Your task to perform on an android device: uninstall "Booking.com: Hotels and more" Image 0: 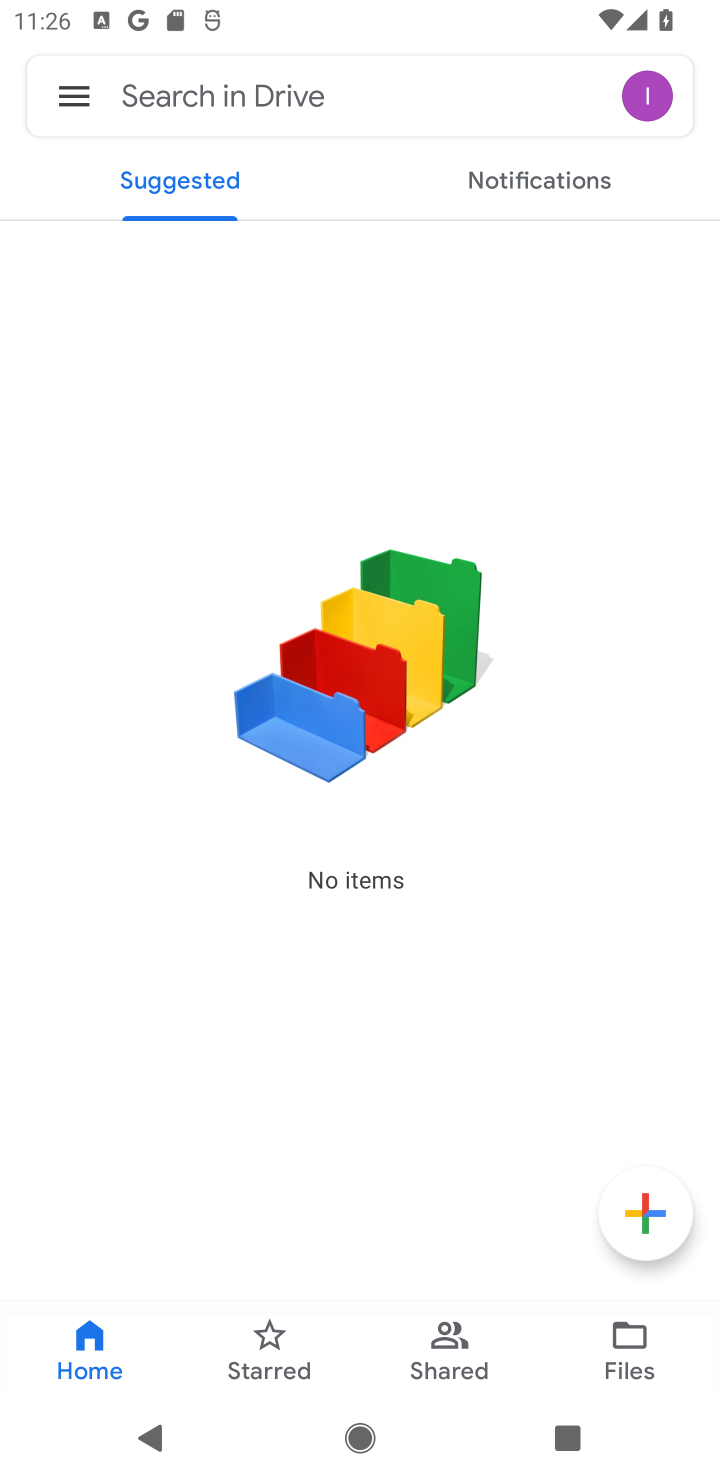
Step 0: press back button
Your task to perform on an android device: uninstall "Booking.com: Hotels and more" Image 1: 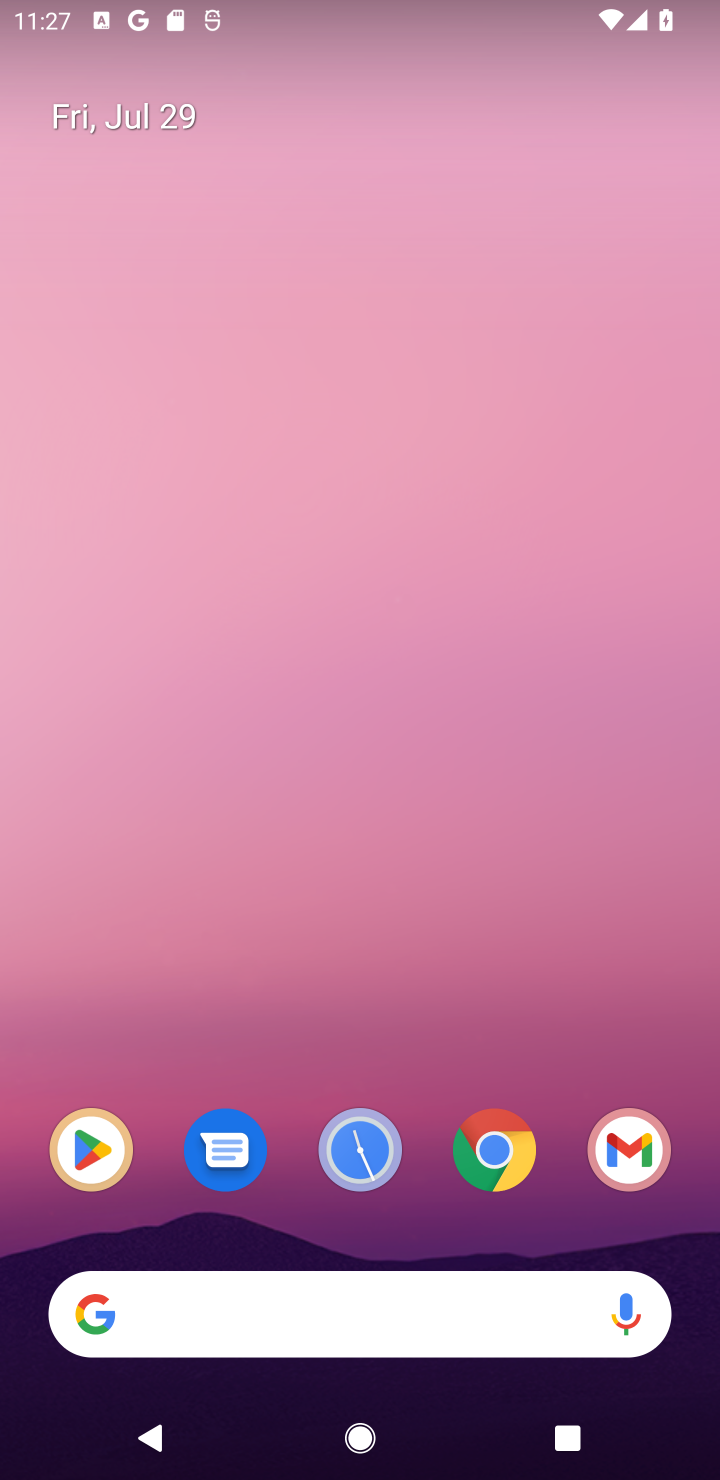
Step 1: click (75, 1181)
Your task to perform on an android device: uninstall "Booking.com: Hotels and more" Image 2: 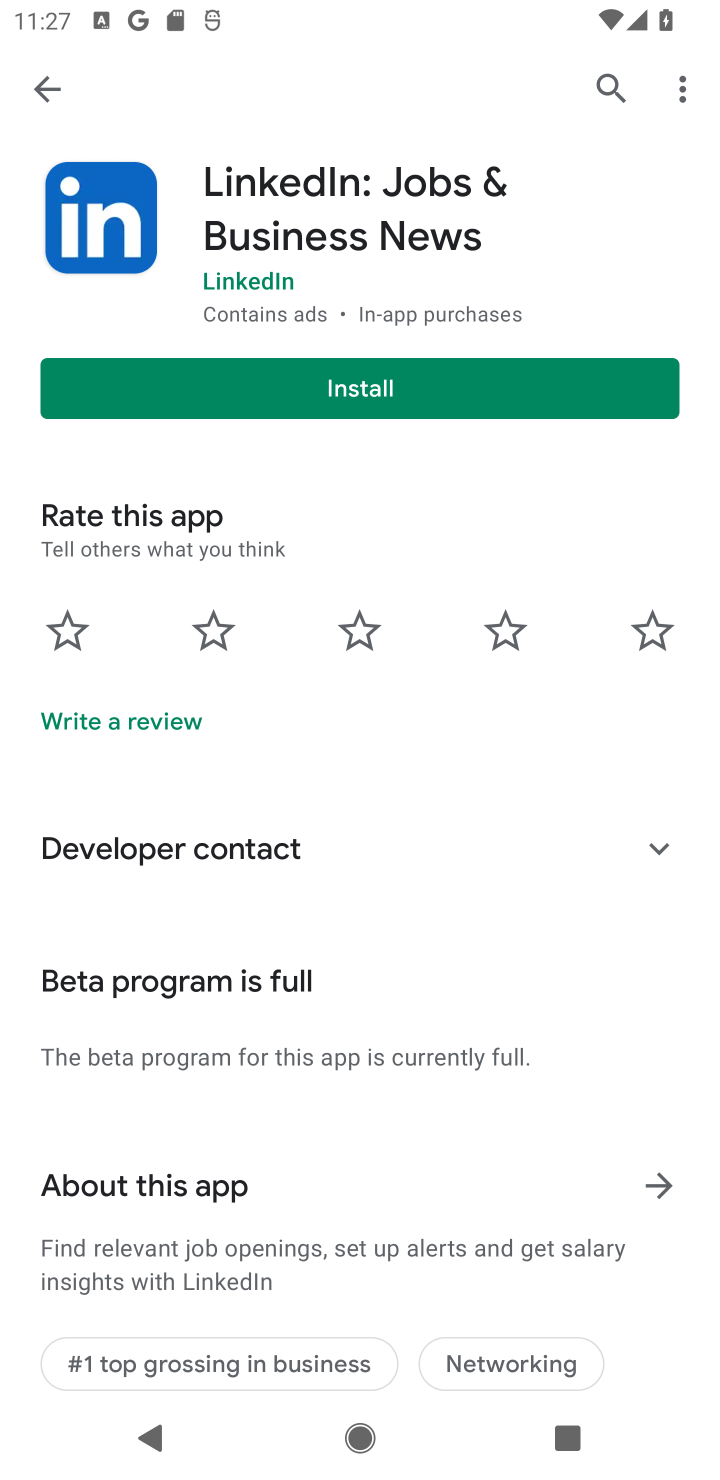
Step 2: click (601, 86)
Your task to perform on an android device: uninstall "Booking.com: Hotels and more" Image 3: 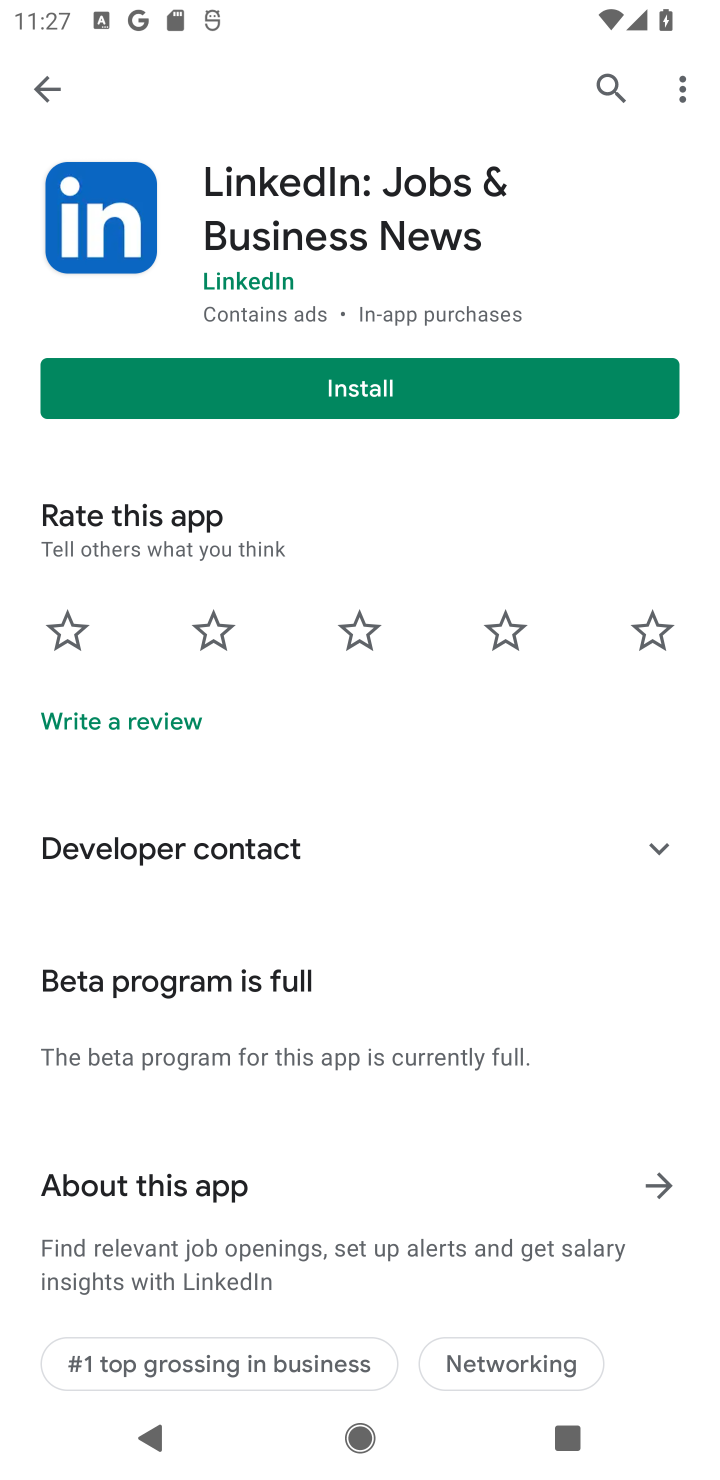
Step 3: click (615, 81)
Your task to perform on an android device: uninstall "Booking.com: Hotels and more" Image 4: 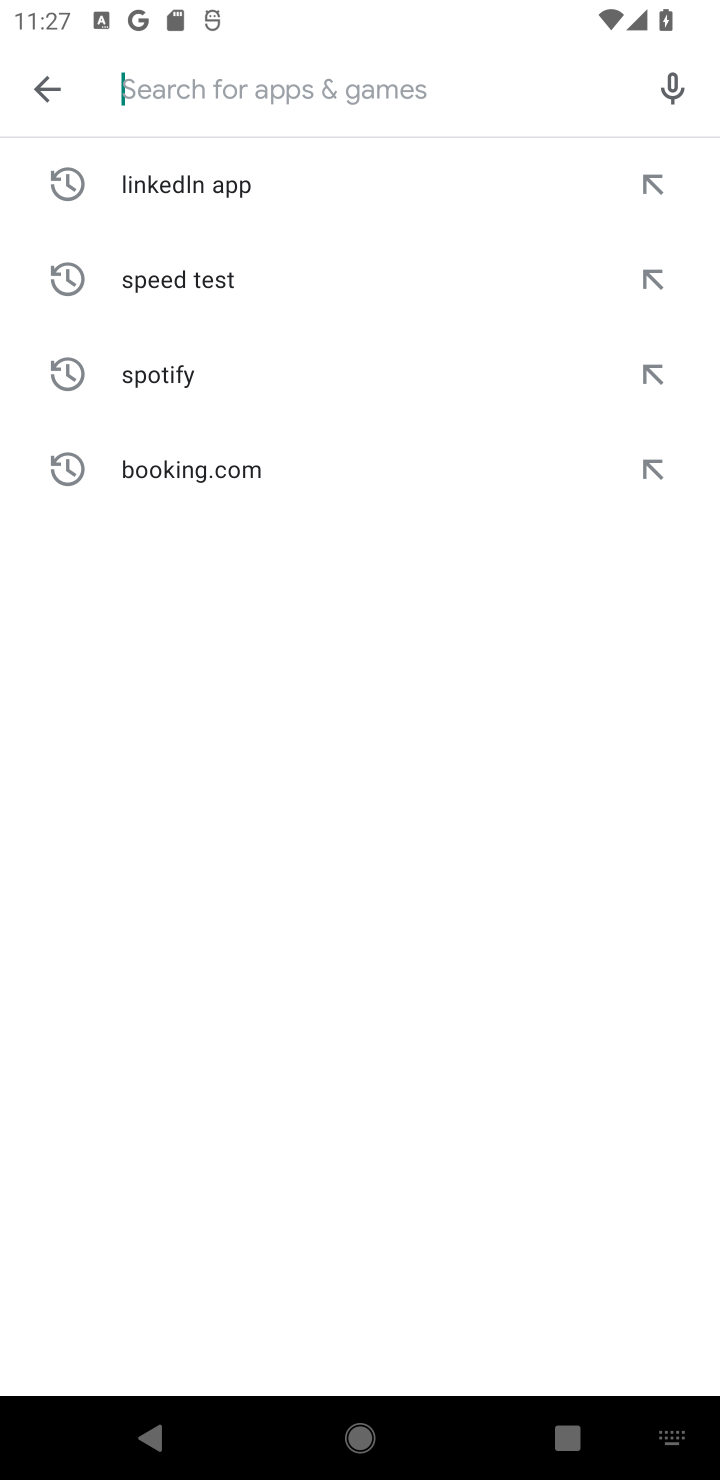
Step 4: click (311, 77)
Your task to perform on an android device: uninstall "Booking.com: Hotels and more" Image 5: 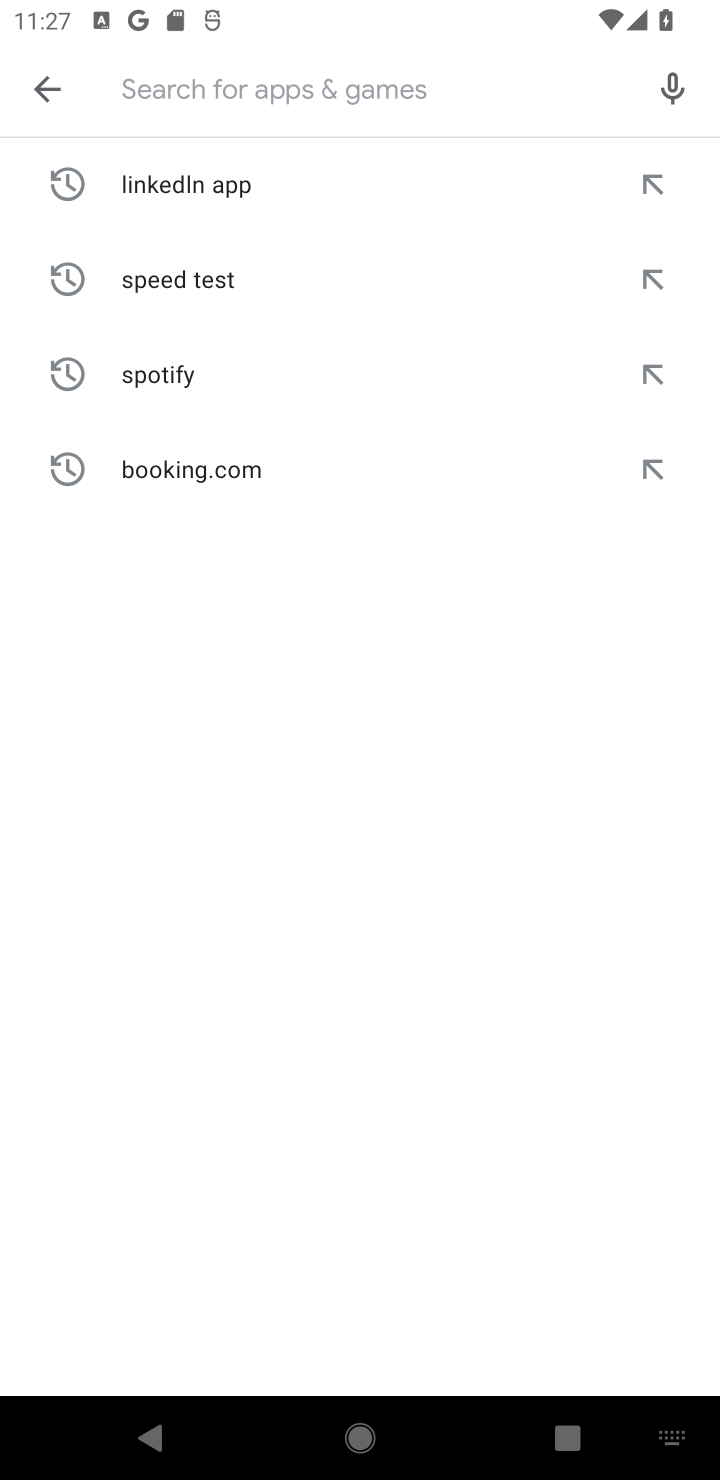
Step 5: click (238, 474)
Your task to perform on an android device: uninstall "Booking.com: Hotels and more" Image 6: 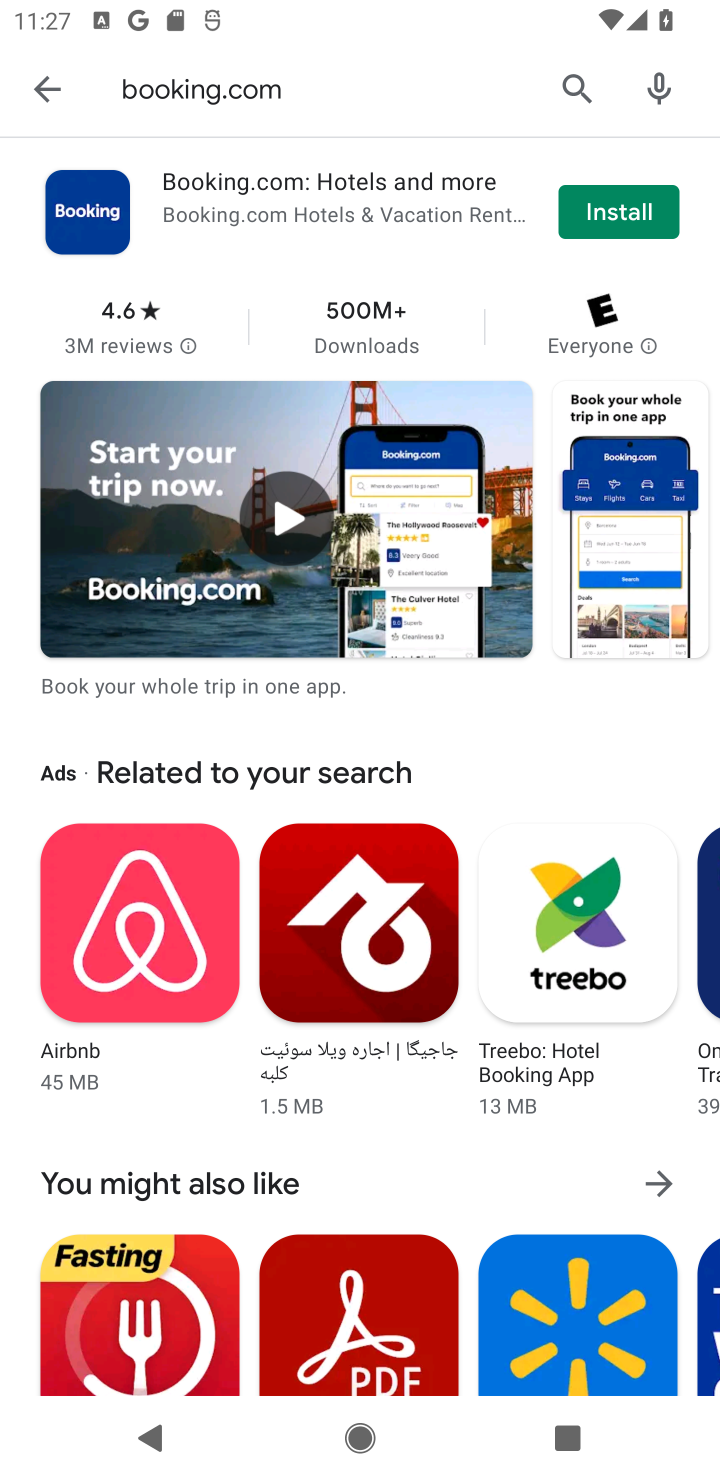
Step 6: click (287, 195)
Your task to perform on an android device: uninstall "Booking.com: Hotels and more" Image 7: 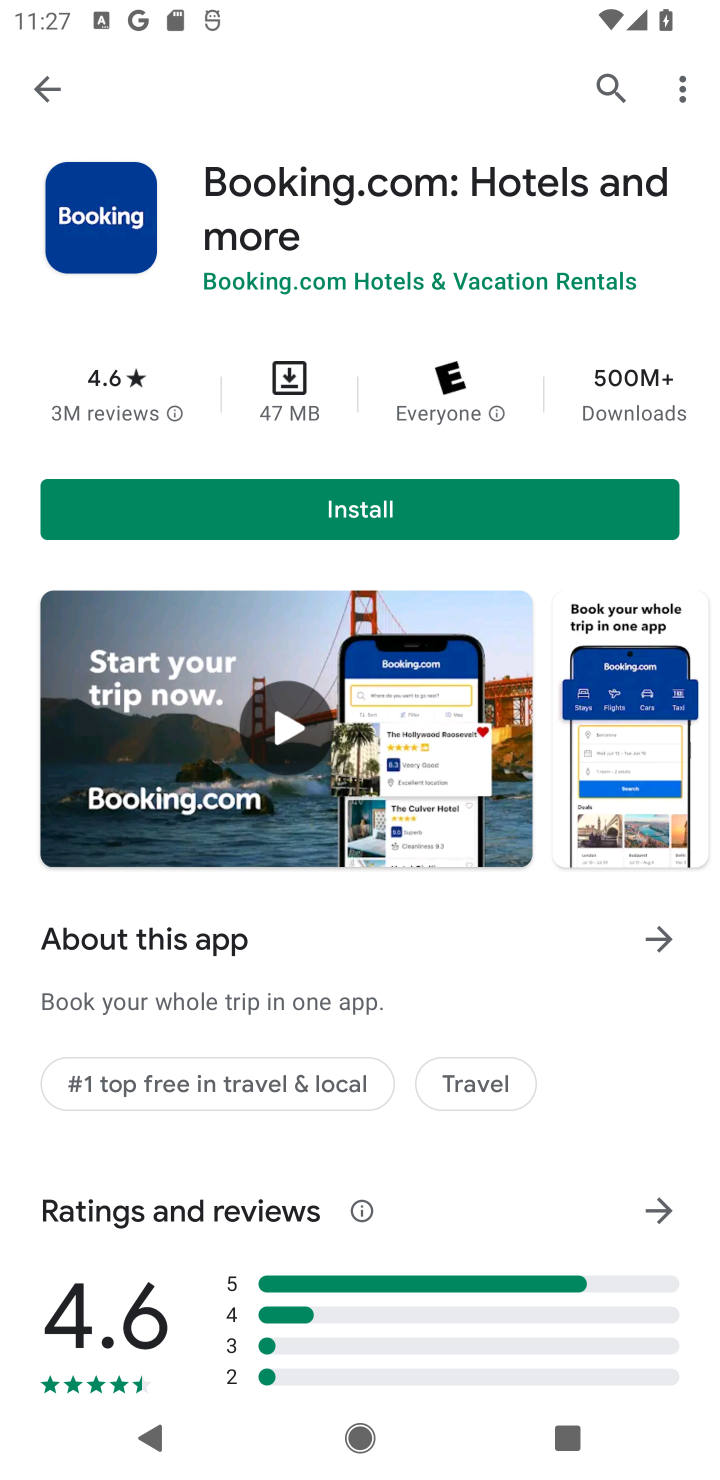
Step 7: task complete